Your task to perform on an android device: search for starred emails in the gmail app Image 0: 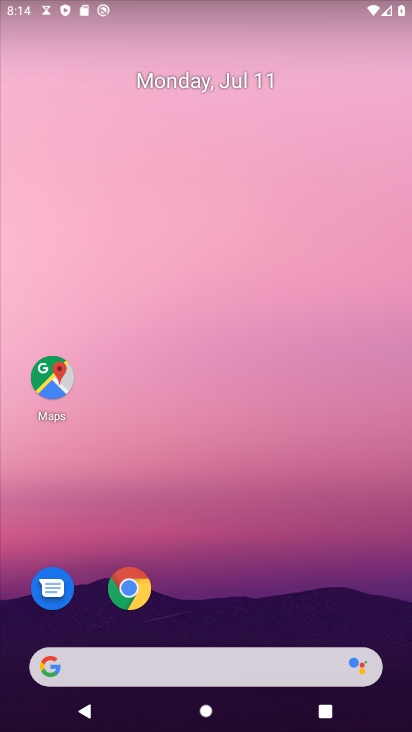
Step 0: press home button
Your task to perform on an android device: search for starred emails in the gmail app Image 1: 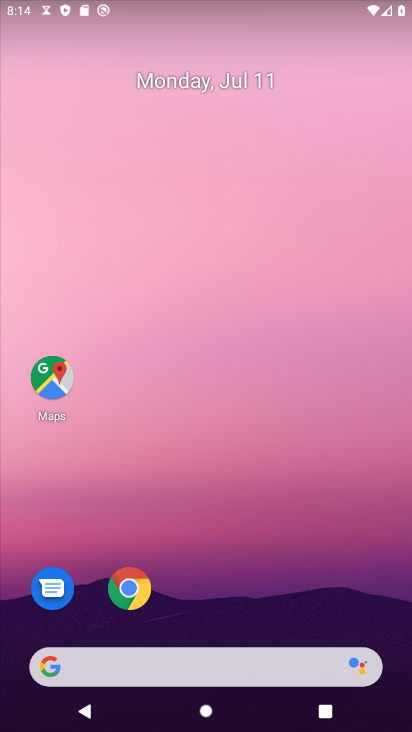
Step 1: drag from (260, 601) to (212, 112)
Your task to perform on an android device: search for starred emails in the gmail app Image 2: 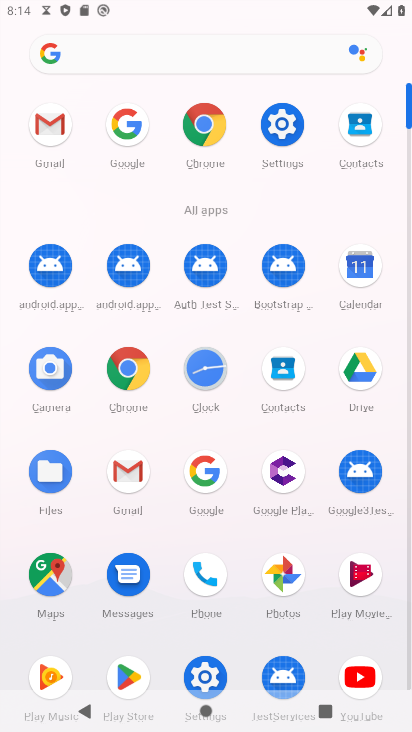
Step 2: click (52, 123)
Your task to perform on an android device: search for starred emails in the gmail app Image 3: 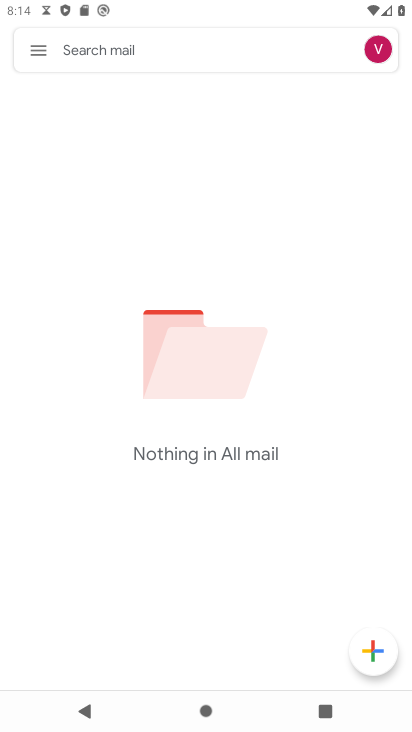
Step 3: click (36, 61)
Your task to perform on an android device: search for starred emails in the gmail app Image 4: 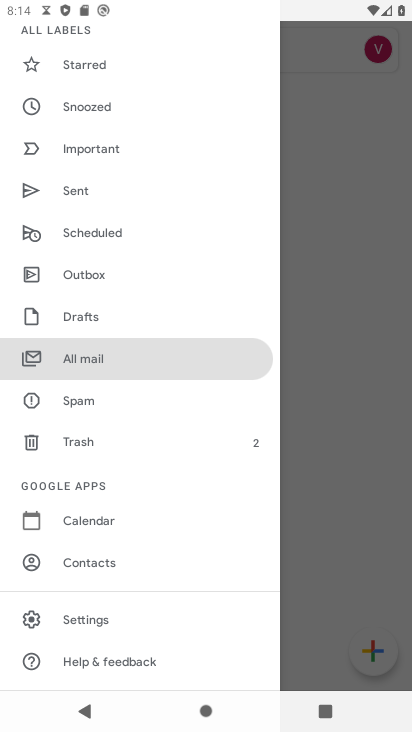
Step 4: drag from (139, 296) to (140, 450)
Your task to perform on an android device: search for starred emails in the gmail app Image 5: 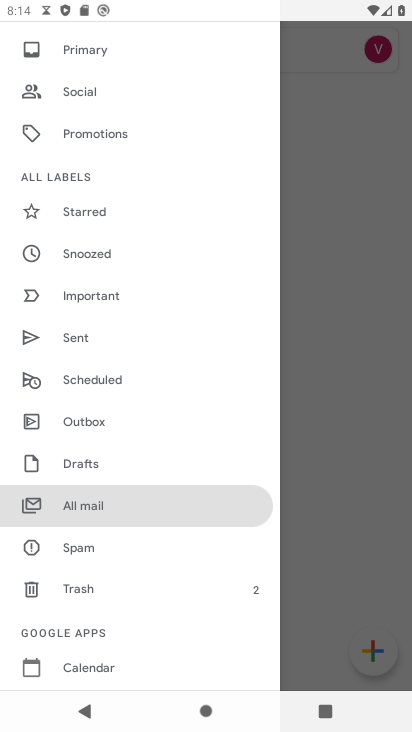
Step 5: drag from (136, 178) to (155, 548)
Your task to perform on an android device: search for starred emails in the gmail app Image 6: 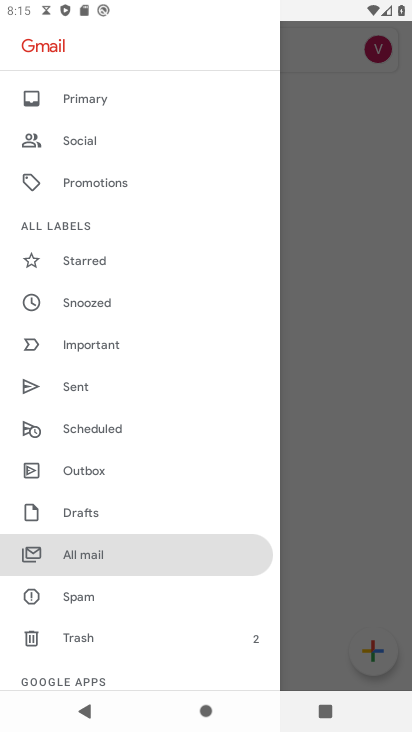
Step 6: click (82, 260)
Your task to perform on an android device: search for starred emails in the gmail app Image 7: 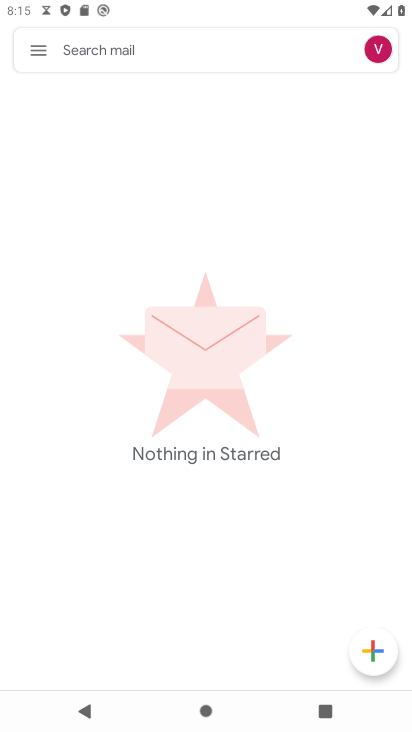
Step 7: task complete